Your task to perform on an android device: find photos in the google photos app Image 0: 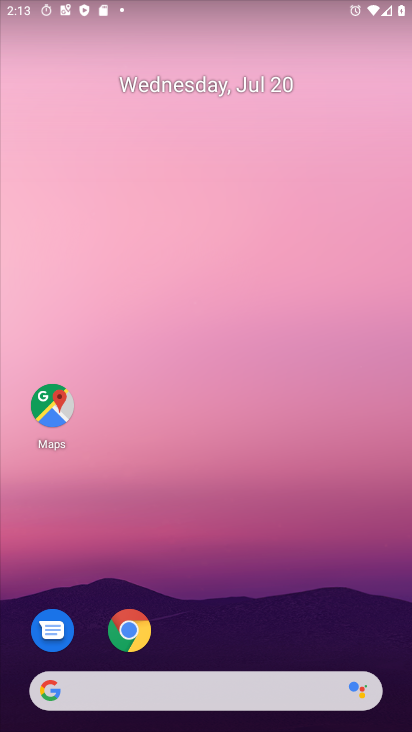
Step 0: drag from (189, 693) to (326, 196)
Your task to perform on an android device: find photos in the google photos app Image 1: 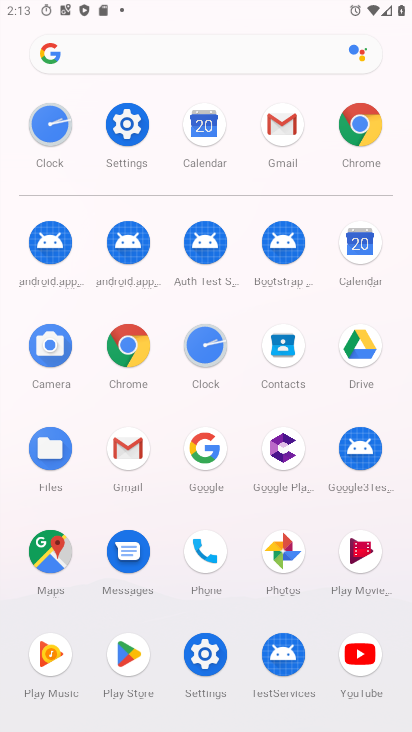
Step 1: click (286, 551)
Your task to perform on an android device: find photos in the google photos app Image 2: 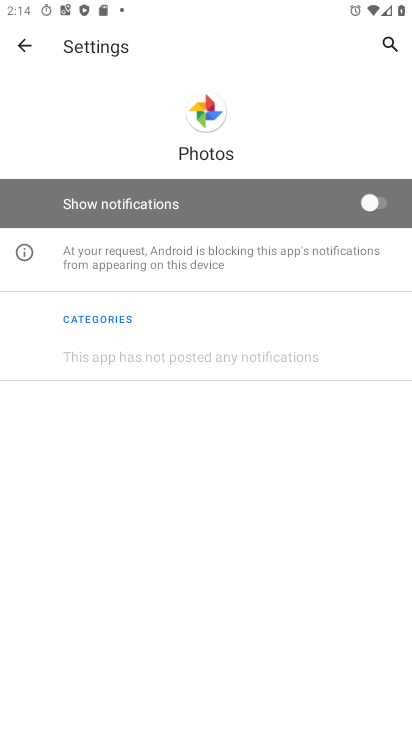
Step 2: click (28, 44)
Your task to perform on an android device: find photos in the google photos app Image 3: 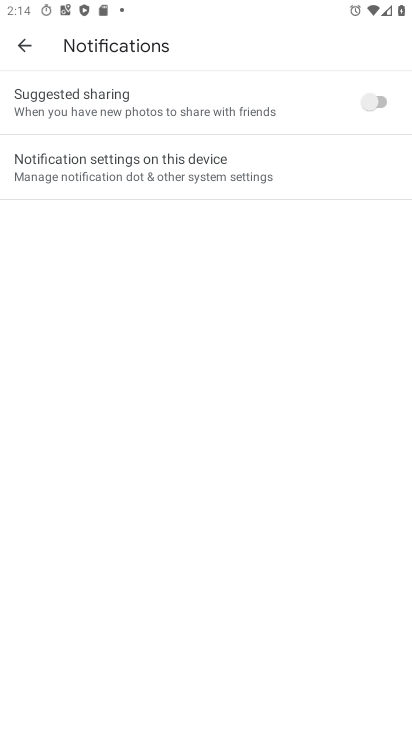
Step 3: click (27, 45)
Your task to perform on an android device: find photos in the google photos app Image 4: 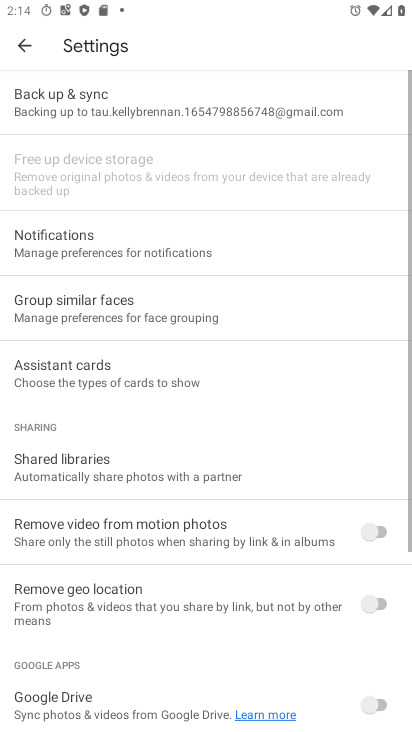
Step 4: click (27, 45)
Your task to perform on an android device: find photos in the google photos app Image 5: 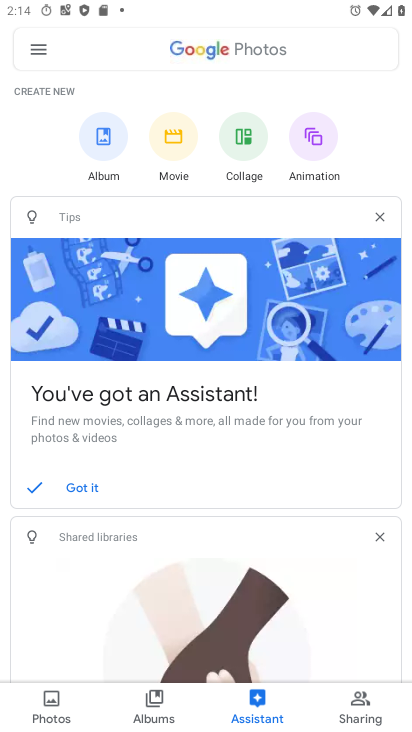
Step 5: click (51, 712)
Your task to perform on an android device: find photos in the google photos app Image 6: 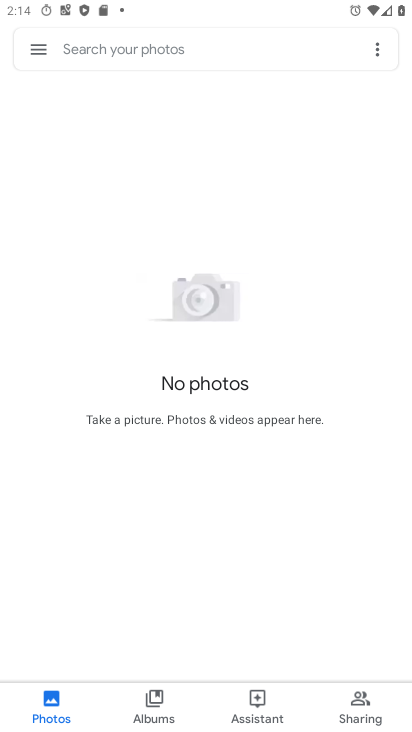
Step 6: task complete